Your task to perform on an android device: remove spam from my inbox in the gmail app Image 0: 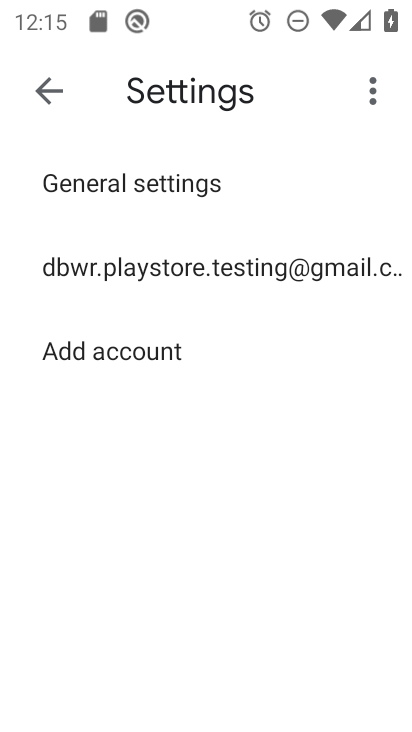
Step 0: click (46, 60)
Your task to perform on an android device: remove spam from my inbox in the gmail app Image 1: 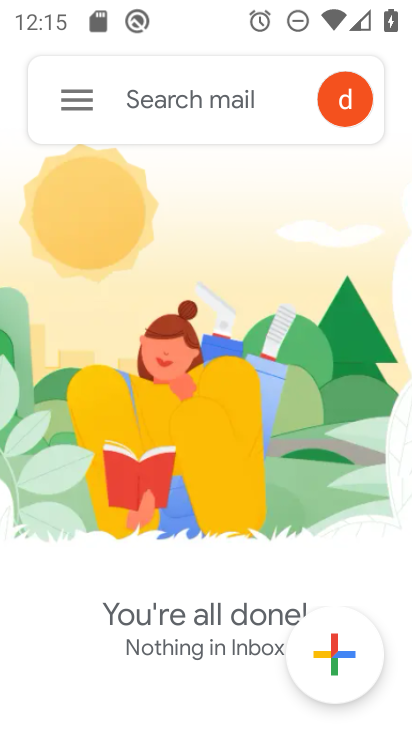
Step 1: click (52, 82)
Your task to perform on an android device: remove spam from my inbox in the gmail app Image 2: 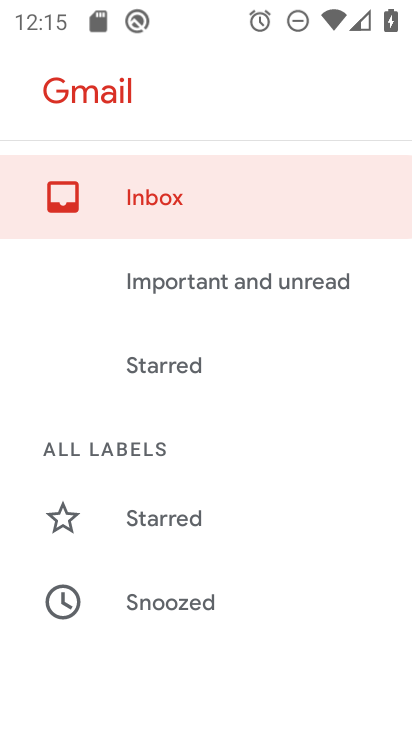
Step 2: click (212, 182)
Your task to perform on an android device: remove spam from my inbox in the gmail app Image 3: 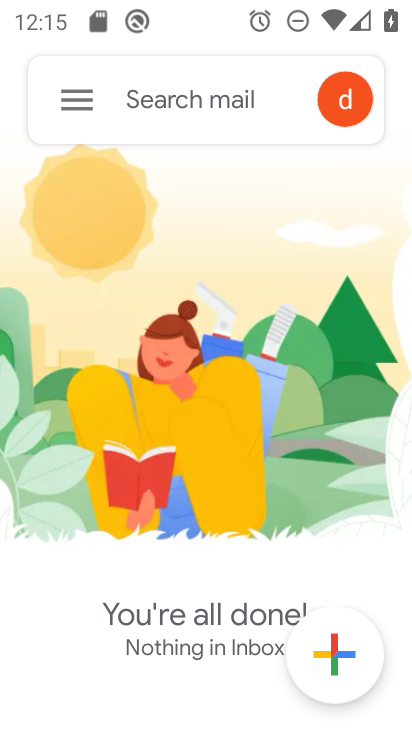
Step 3: click (72, 119)
Your task to perform on an android device: remove spam from my inbox in the gmail app Image 4: 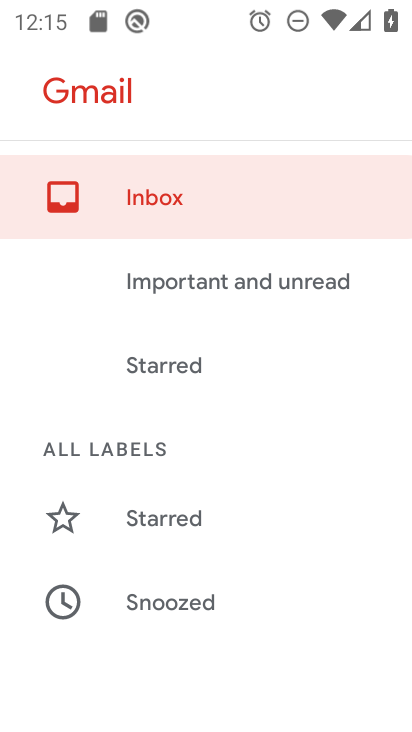
Step 4: drag from (147, 572) to (166, 202)
Your task to perform on an android device: remove spam from my inbox in the gmail app Image 5: 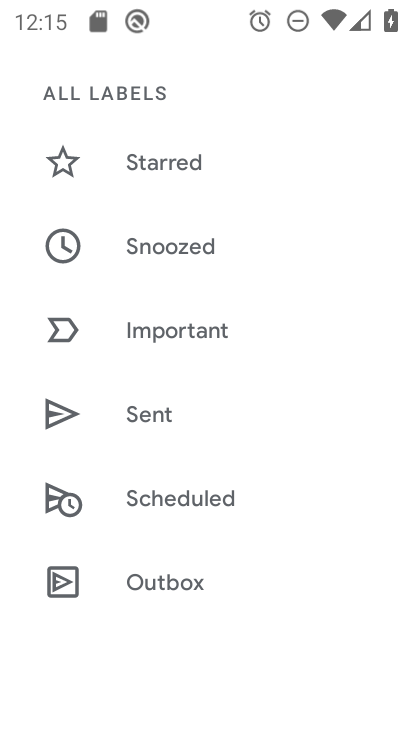
Step 5: drag from (95, 565) to (135, 246)
Your task to perform on an android device: remove spam from my inbox in the gmail app Image 6: 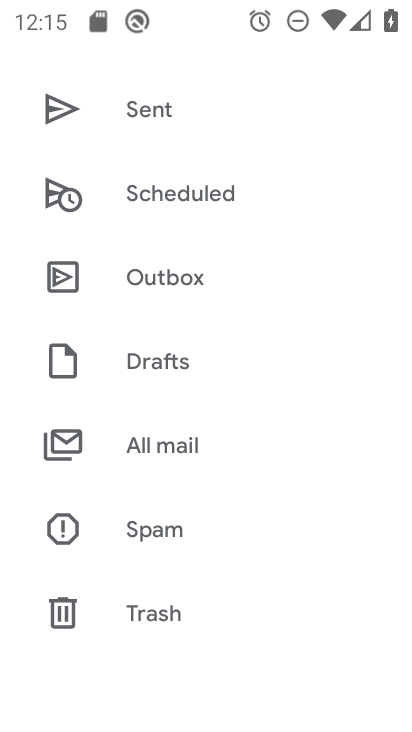
Step 6: click (200, 547)
Your task to perform on an android device: remove spam from my inbox in the gmail app Image 7: 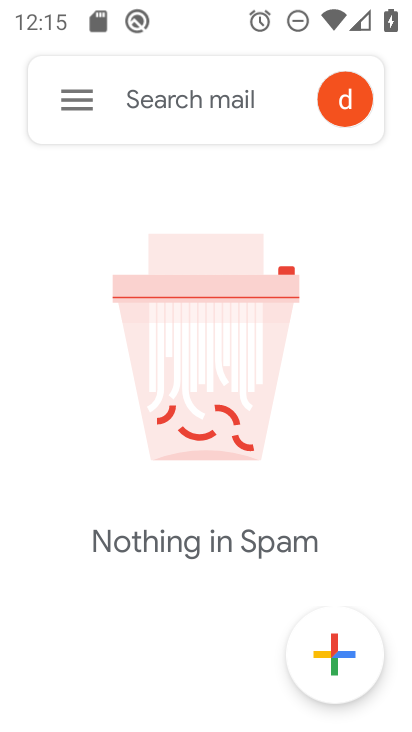
Step 7: task complete